Your task to perform on an android device: empty trash in the gmail app Image 0: 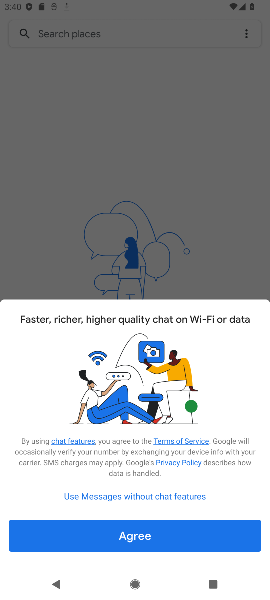
Step 0: press home button
Your task to perform on an android device: empty trash in the gmail app Image 1: 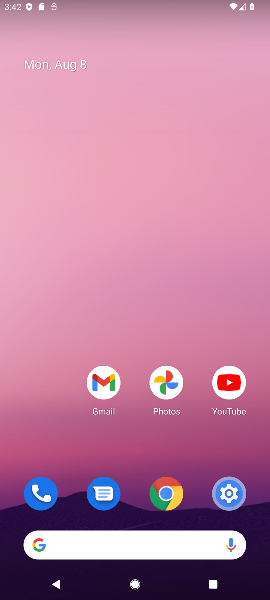
Step 1: drag from (138, 517) to (1, 0)
Your task to perform on an android device: empty trash in the gmail app Image 2: 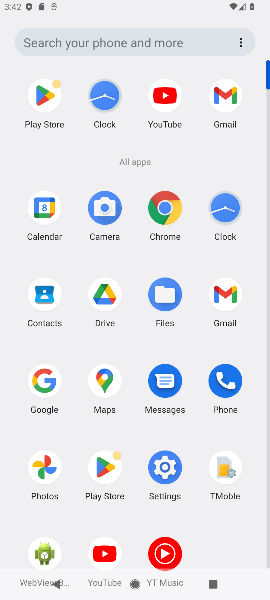
Step 2: click (218, 110)
Your task to perform on an android device: empty trash in the gmail app Image 3: 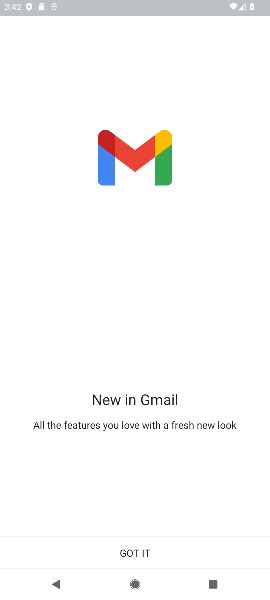
Step 3: click (170, 545)
Your task to perform on an android device: empty trash in the gmail app Image 4: 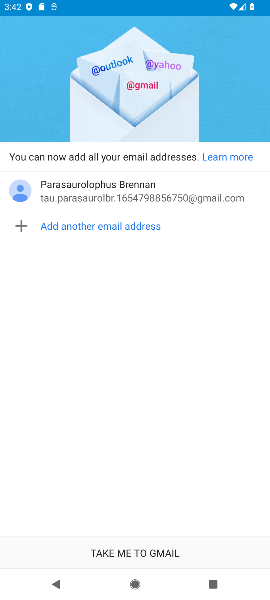
Step 4: click (170, 545)
Your task to perform on an android device: empty trash in the gmail app Image 5: 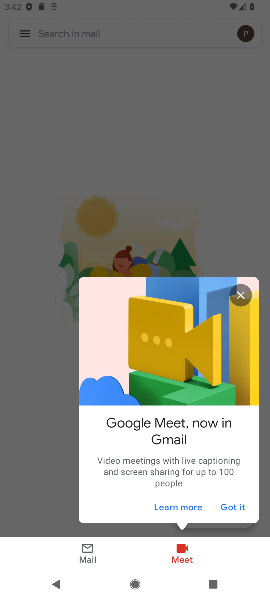
Step 5: click (232, 296)
Your task to perform on an android device: empty trash in the gmail app Image 6: 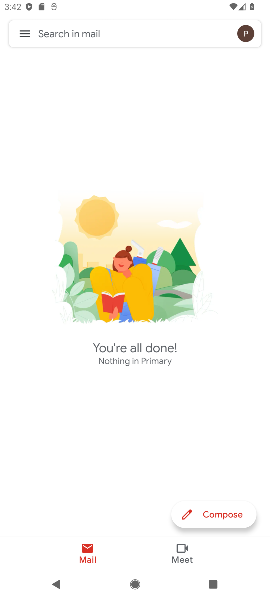
Step 6: click (20, 35)
Your task to perform on an android device: empty trash in the gmail app Image 7: 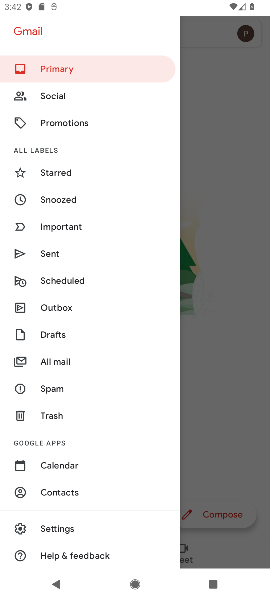
Step 7: click (62, 420)
Your task to perform on an android device: empty trash in the gmail app Image 8: 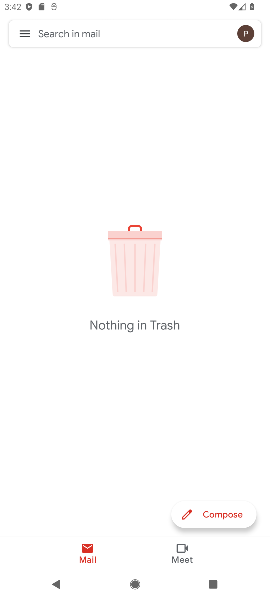
Step 8: task complete